Your task to perform on an android device: delete location history Image 0: 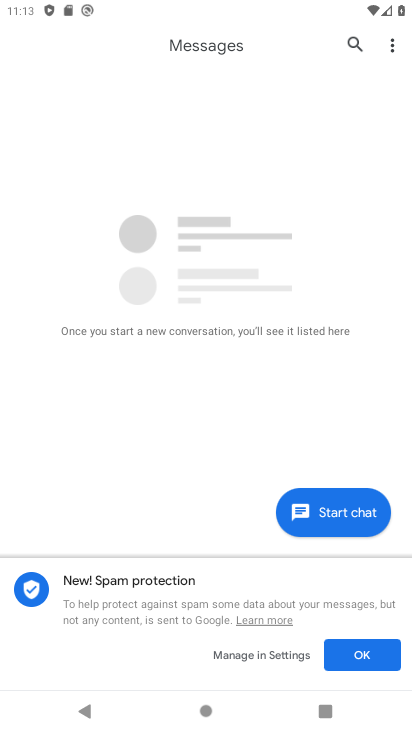
Step 0: press home button
Your task to perform on an android device: delete location history Image 1: 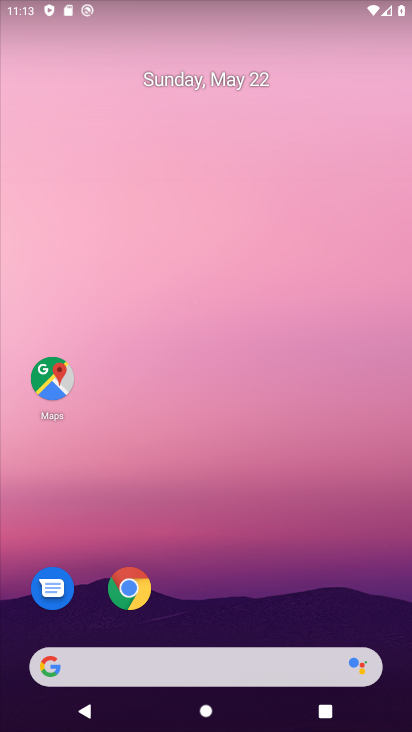
Step 1: drag from (275, 613) to (240, 287)
Your task to perform on an android device: delete location history Image 2: 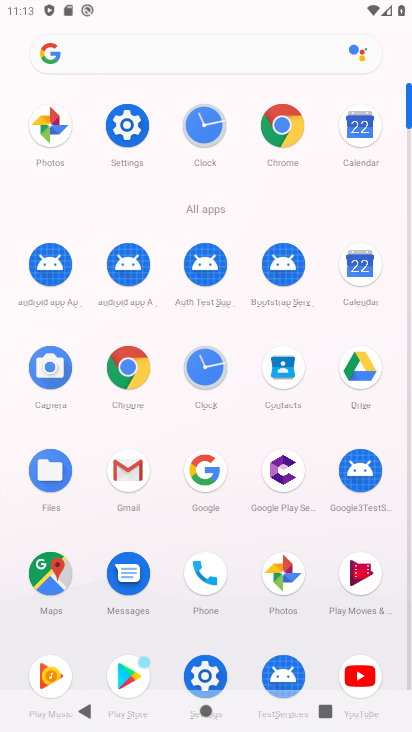
Step 2: click (125, 122)
Your task to perform on an android device: delete location history Image 3: 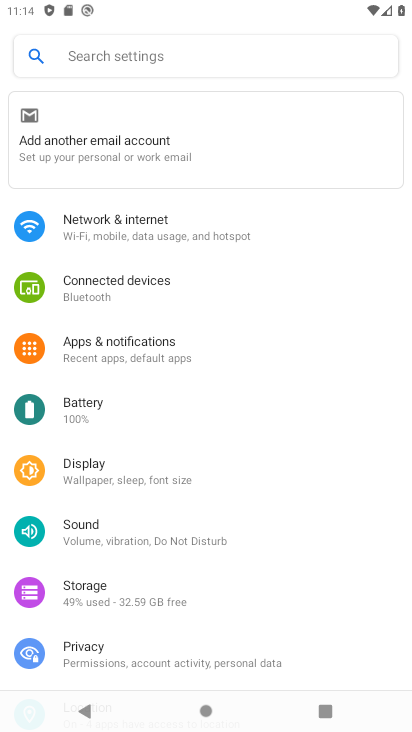
Step 3: click (149, 53)
Your task to perform on an android device: delete location history Image 4: 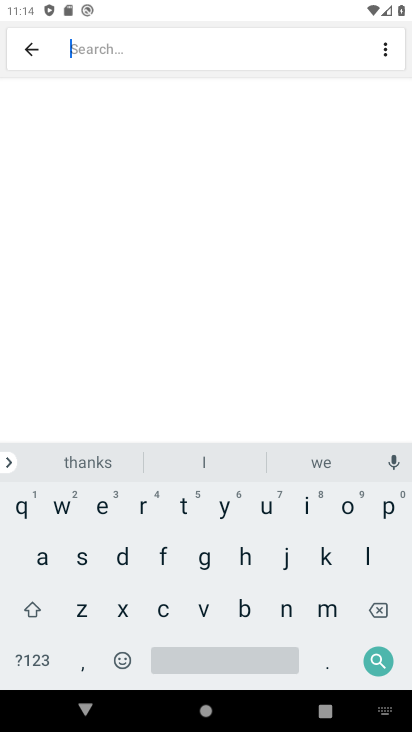
Step 4: click (175, 50)
Your task to perform on an android device: delete location history Image 5: 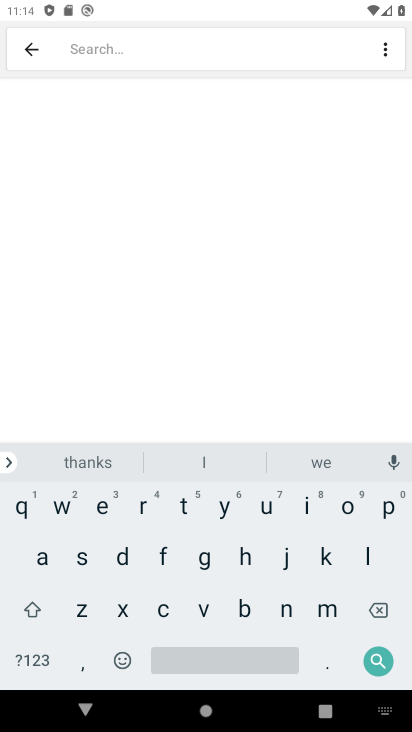
Step 5: click (386, 708)
Your task to perform on an android device: delete location history Image 6: 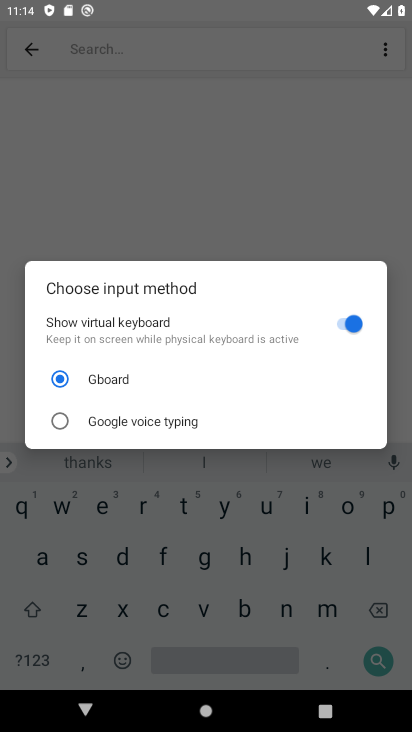
Step 6: click (308, 467)
Your task to perform on an android device: delete location history Image 7: 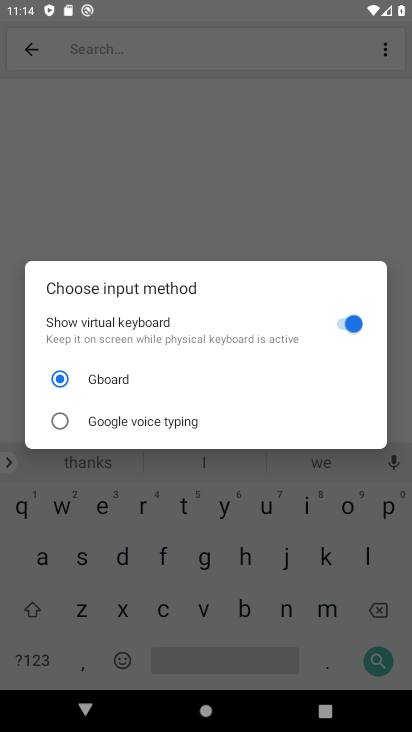
Step 7: click (306, 546)
Your task to perform on an android device: delete location history Image 8: 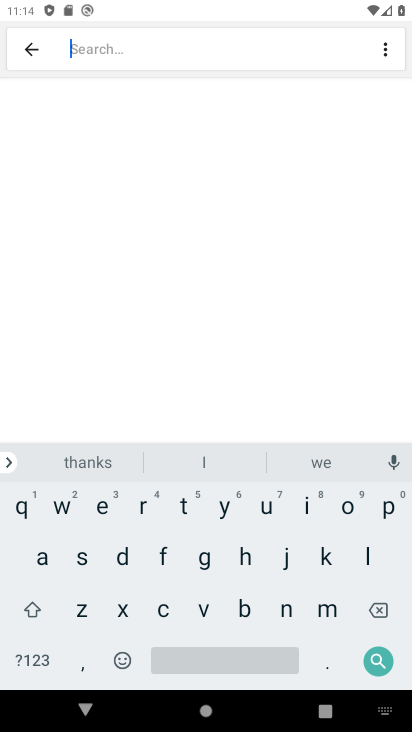
Step 8: click (366, 556)
Your task to perform on an android device: delete location history Image 9: 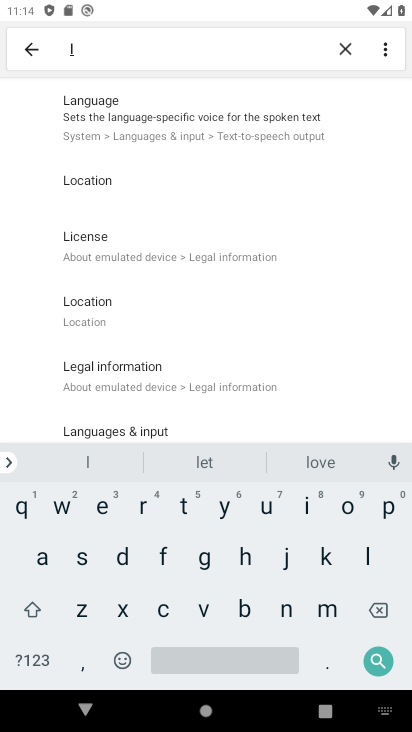
Step 9: click (351, 507)
Your task to perform on an android device: delete location history Image 10: 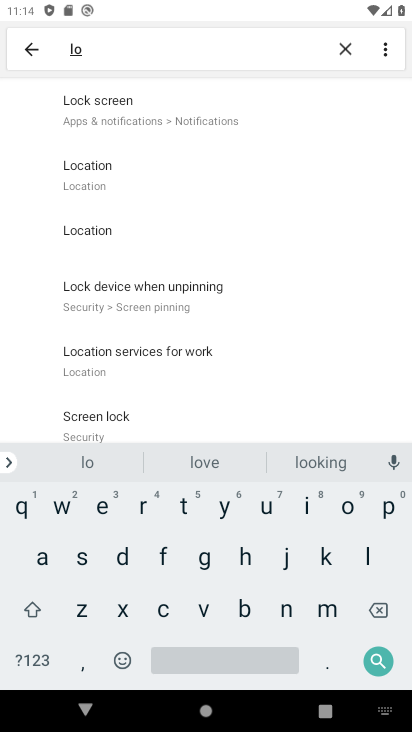
Step 10: click (122, 159)
Your task to perform on an android device: delete location history Image 11: 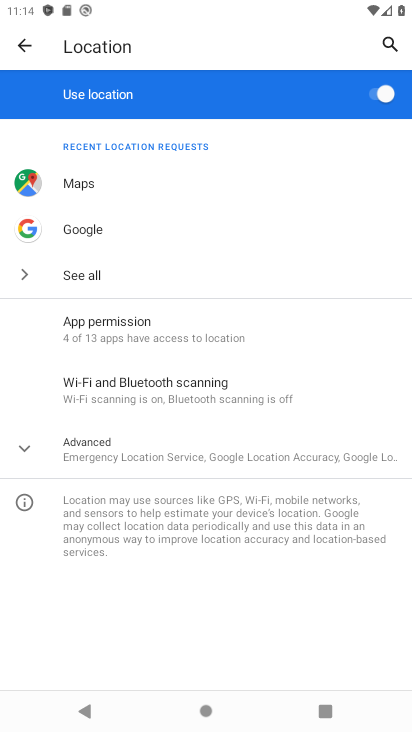
Step 11: click (47, 447)
Your task to perform on an android device: delete location history Image 12: 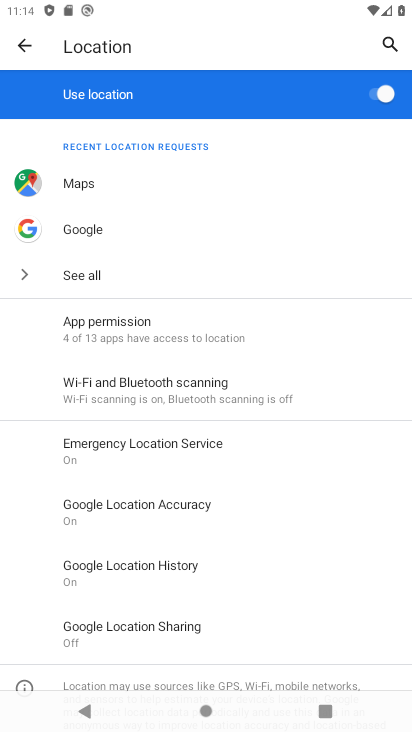
Step 12: click (129, 561)
Your task to perform on an android device: delete location history Image 13: 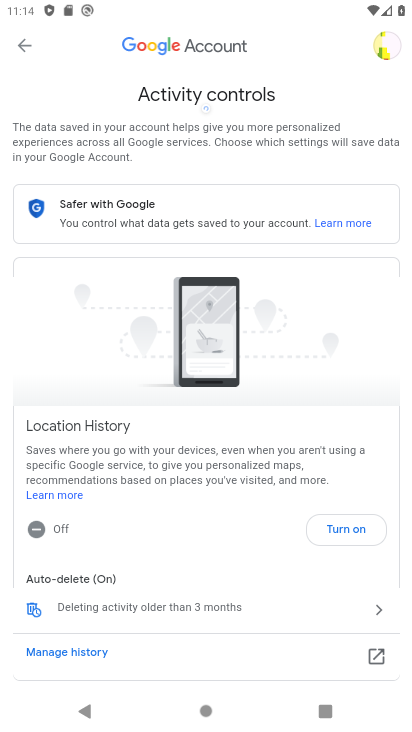
Step 13: click (176, 603)
Your task to perform on an android device: delete location history Image 14: 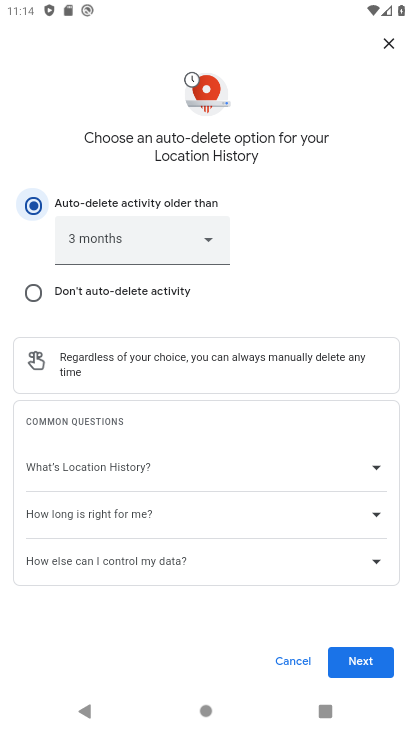
Step 14: task complete